Your task to perform on an android device: manage bookmarks in the chrome app Image 0: 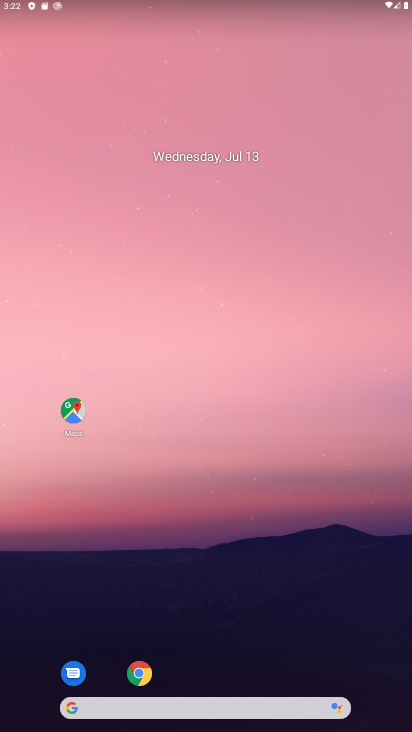
Step 0: click (139, 671)
Your task to perform on an android device: manage bookmarks in the chrome app Image 1: 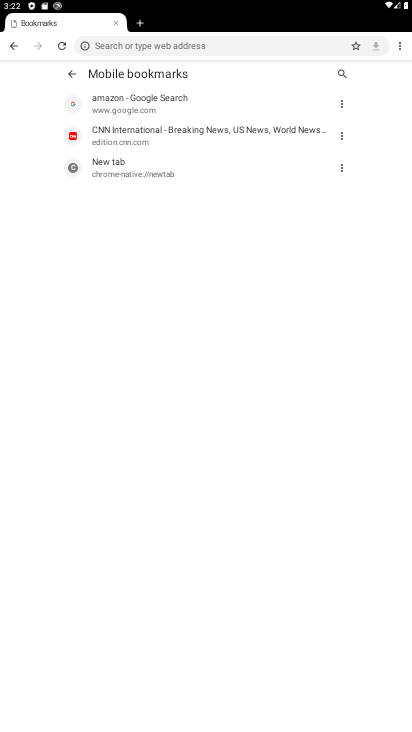
Step 1: click (398, 46)
Your task to perform on an android device: manage bookmarks in the chrome app Image 2: 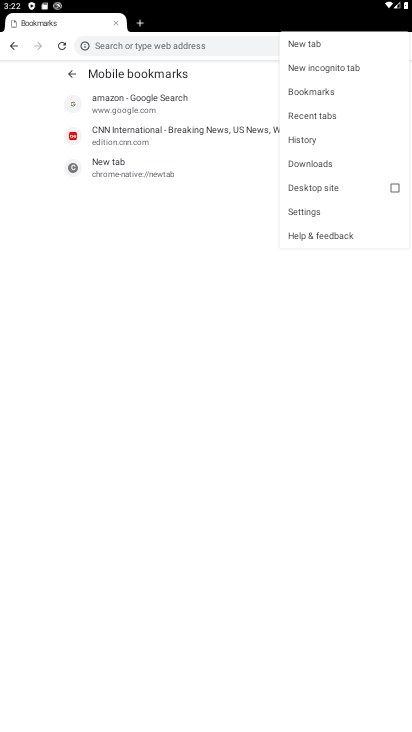
Step 2: click (323, 94)
Your task to perform on an android device: manage bookmarks in the chrome app Image 3: 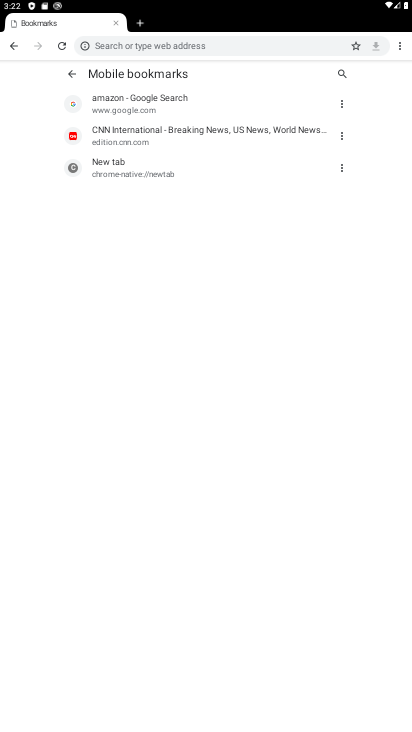
Step 3: click (341, 166)
Your task to perform on an android device: manage bookmarks in the chrome app Image 4: 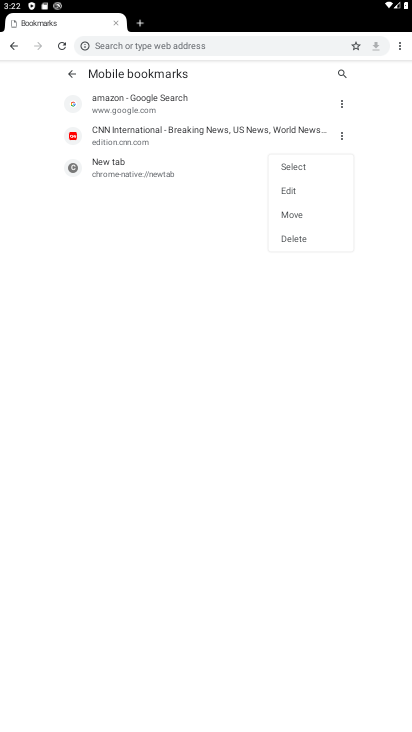
Step 4: click (295, 215)
Your task to perform on an android device: manage bookmarks in the chrome app Image 5: 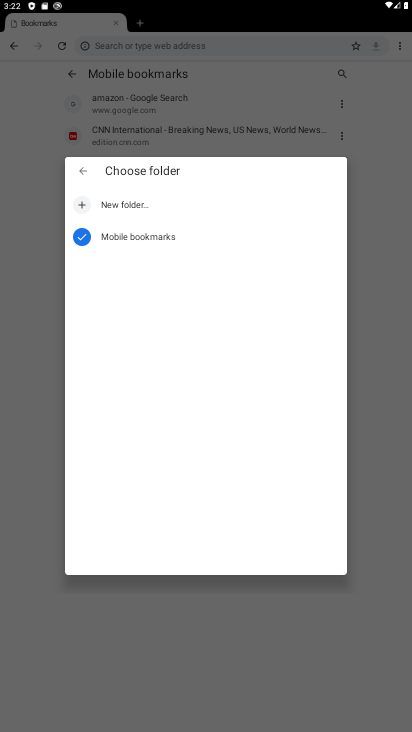
Step 5: click (161, 239)
Your task to perform on an android device: manage bookmarks in the chrome app Image 6: 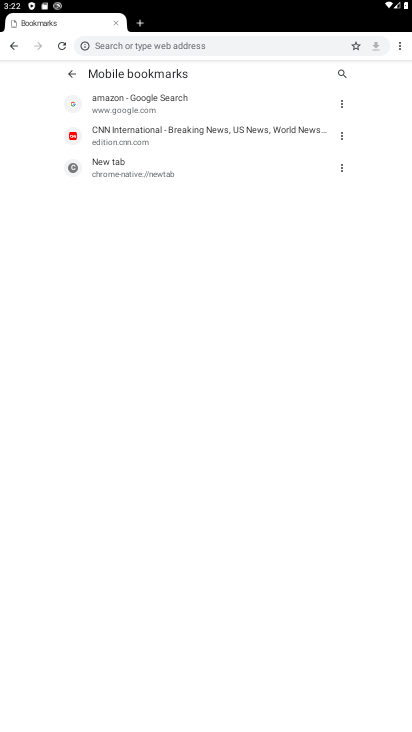
Step 6: task complete